Your task to perform on an android device: turn on priority inbox in the gmail app Image 0: 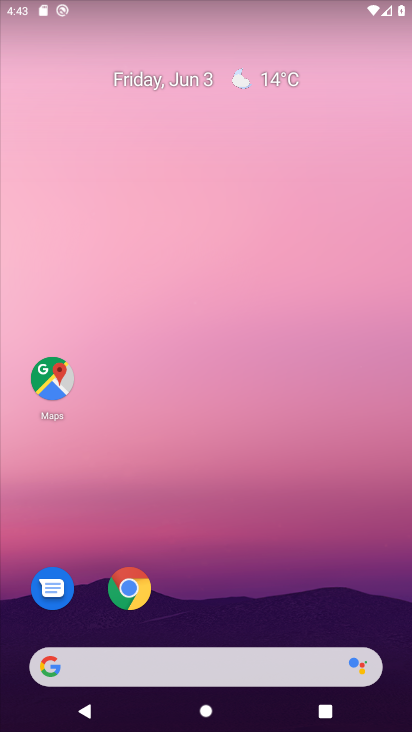
Step 0: drag from (226, 567) to (154, 27)
Your task to perform on an android device: turn on priority inbox in the gmail app Image 1: 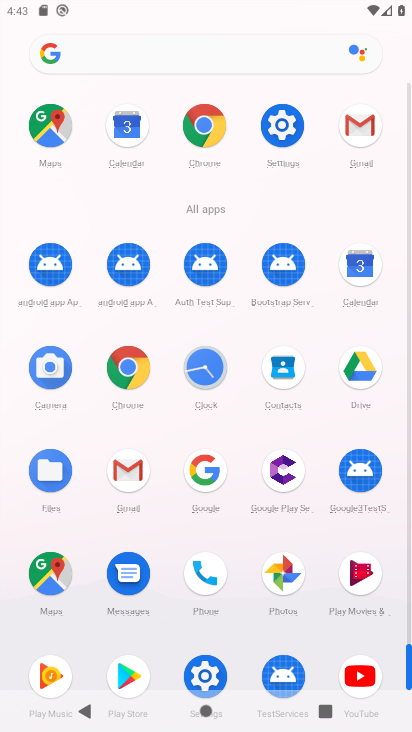
Step 1: click (129, 463)
Your task to perform on an android device: turn on priority inbox in the gmail app Image 2: 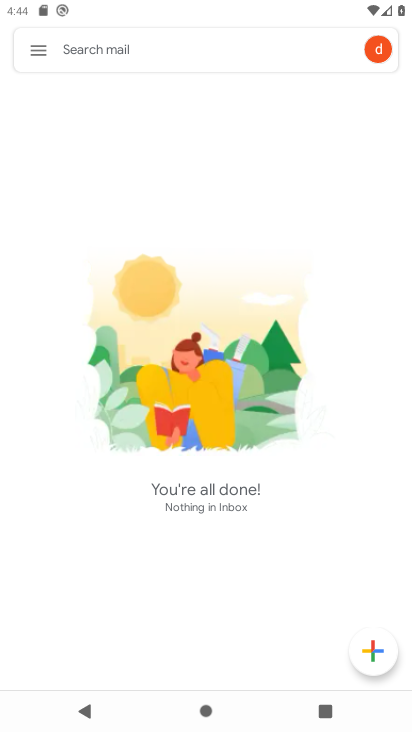
Step 2: click (33, 34)
Your task to perform on an android device: turn on priority inbox in the gmail app Image 3: 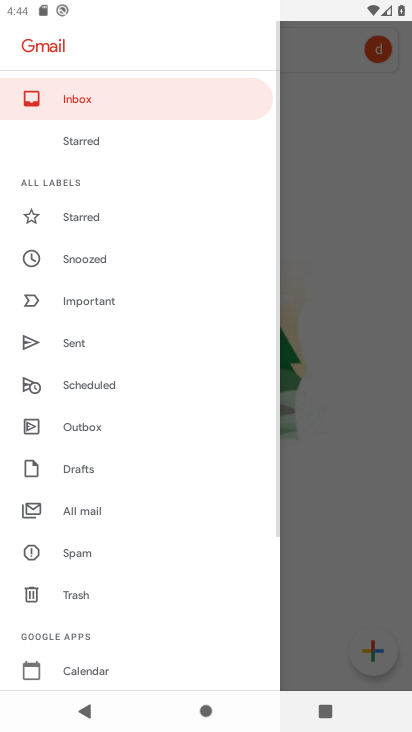
Step 3: drag from (124, 603) to (168, 80)
Your task to perform on an android device: turn on priority inbox in the gmail app Image 4: 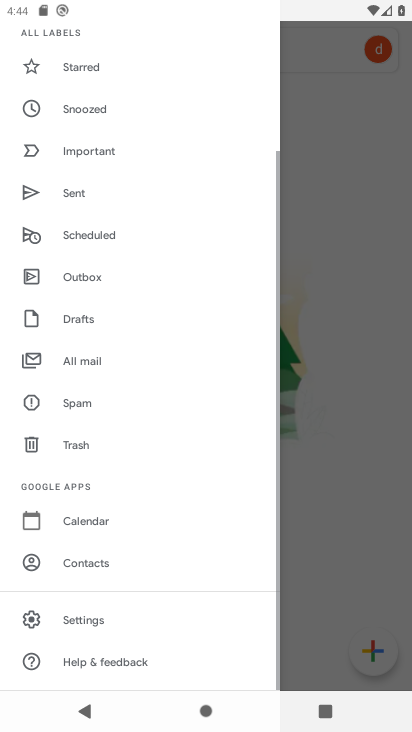
Step 4: click (83, 620)
Your task to perform on an android device: turn on priority inbox in the gmail app Image 5: 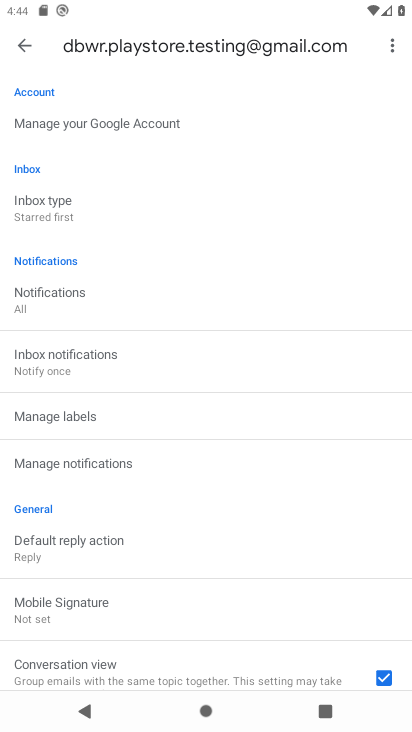
Step 5: drag from (199, 561) to (197, 141)
Your task to perform on an android device: turn on priority inbox in the gmail app Image 6: 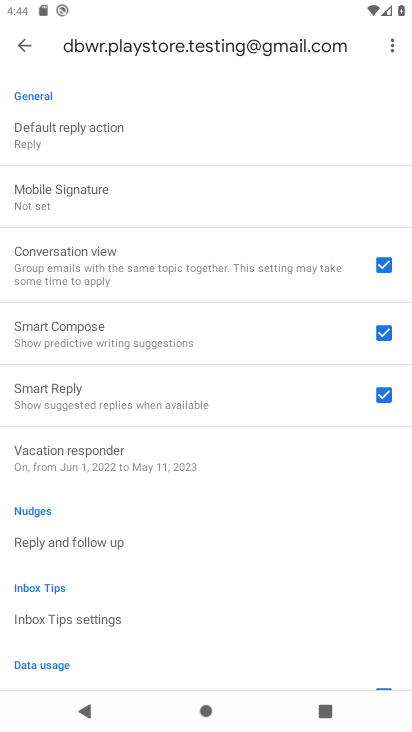
Step 6: drag from (213, 305) to (225, 127)
Your task to perform on an android device: turn on priority inbox in the gmail app Image 7: 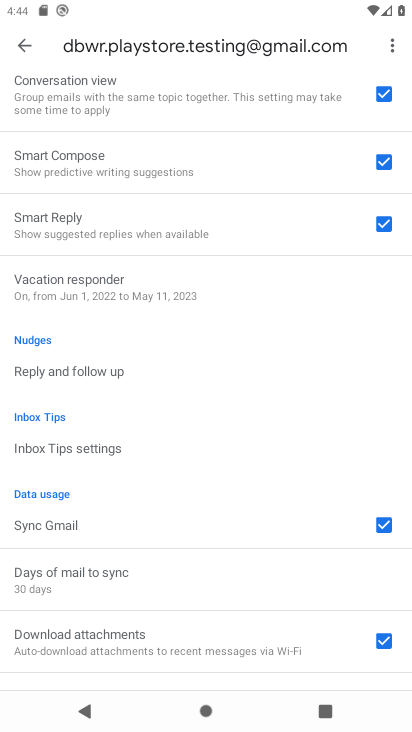
Step 7: drag from (122, 584) to (173, 174)
Your task to perform on an android device: turn on priority inbox in the gmail app Image 8: 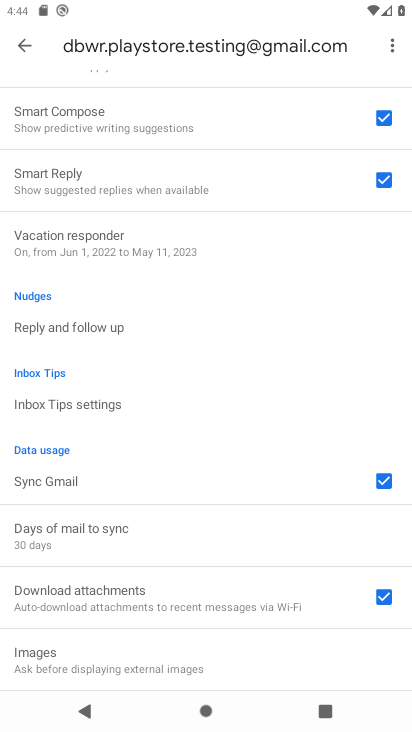
Step 8: drag from (169, 268) to (172, 637)
Your task to perform on an android device: turn on priority inbox in the gmail app Image 9: 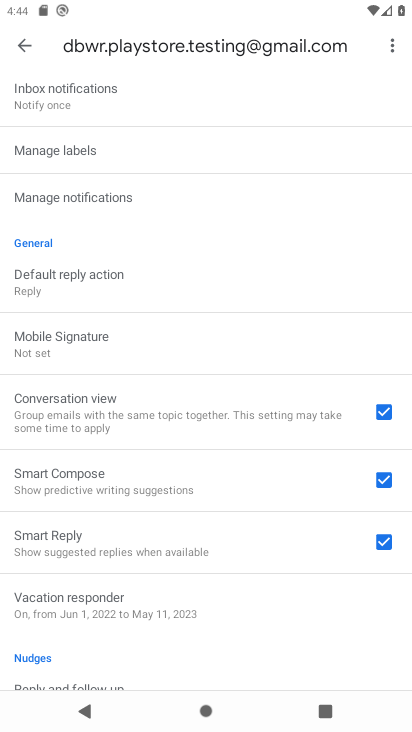
Step 9: drag from (171, 269) to (170, 650)
Your task to perform on an android device: turn on priority inbox in the gmail app Image 10: 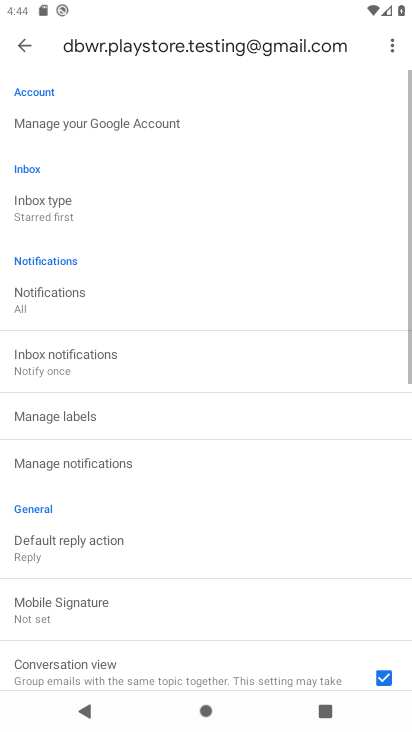
Step 10: drag from (238, 255) to (231, 666)
Your task to perform on an android device: turn on priority inbox in the gmail app Image 11: 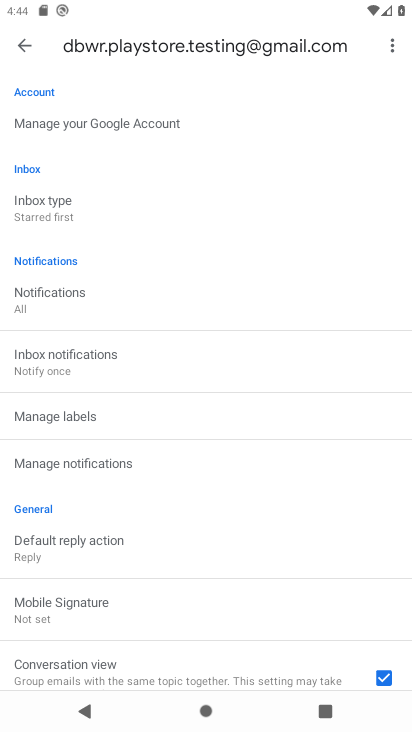
Step 11: drag from (216, 177) to (210, 617)
Your task to perform on an android device: turn on priority inbox in the gmail app Image 12: 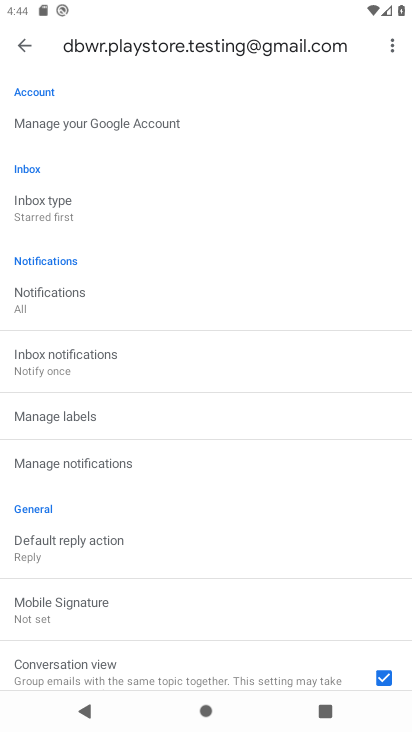
Step 12: click (82, 194)
Your task to perform on an android device: turn on priority inbox in the gmail app Image 13: 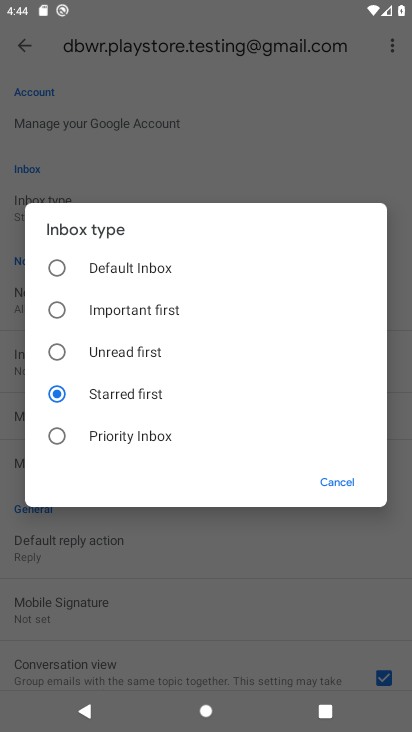
Step 13: click (135, 428)
Your task to perform on an android device: turn on priority inbox in the gmail app Image 14: 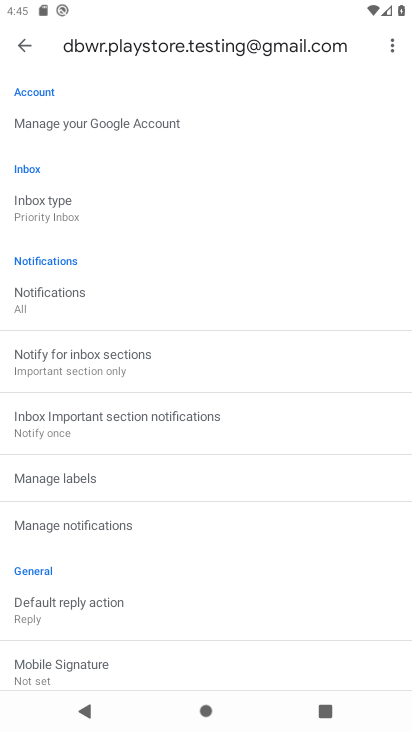
Step 14: task complete